Your task to perform on an android device: Open eBay Image 0: 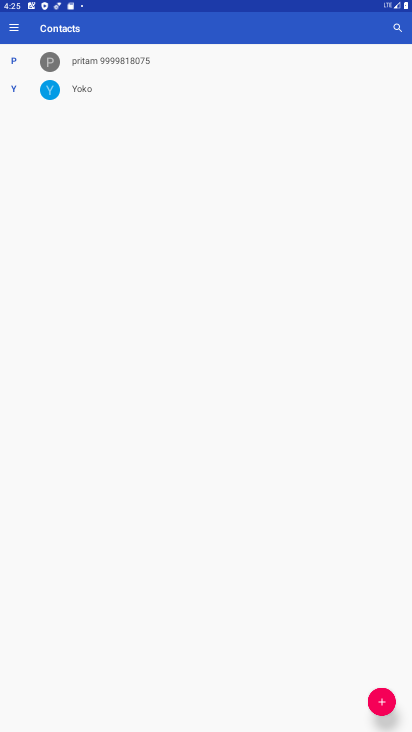
Step 0: press home button
Your task to perform on an android device: Open eBay Image 1: 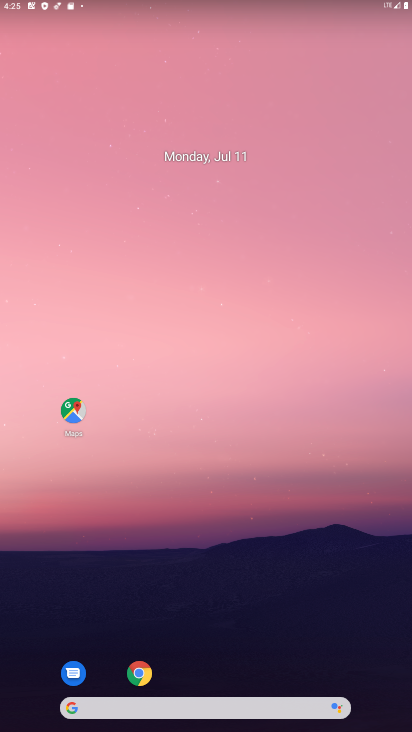
Step 1: drag from (305, 638) to (291, 137)
Your task to perform on an android device: Open eBay Image 2: 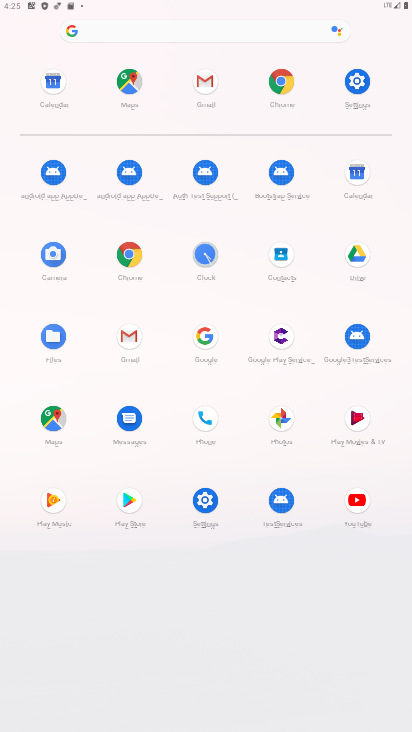
Step 2: click (276, 83)
Your task to perform on an android device: Open eBay Image 3: 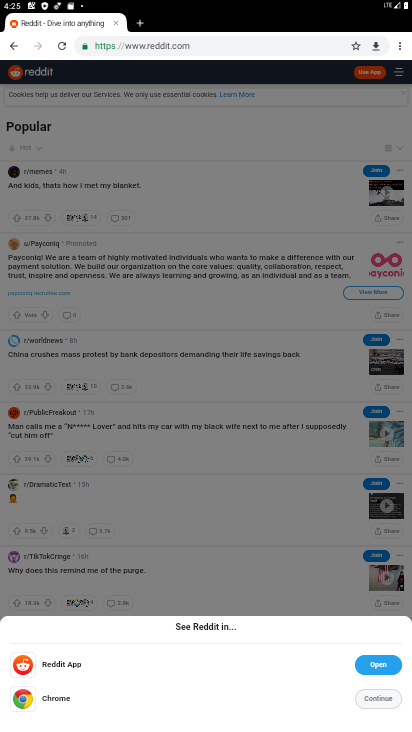
Step 3: click (270, 51)
Your task to perform on an android device: Open eBay Image 4: 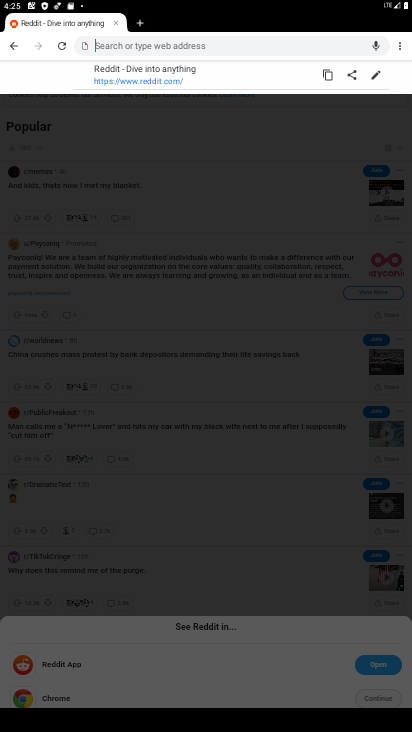
Step 4: type "ebay"
Your task to perform on an android device: Open eBay Image 5: 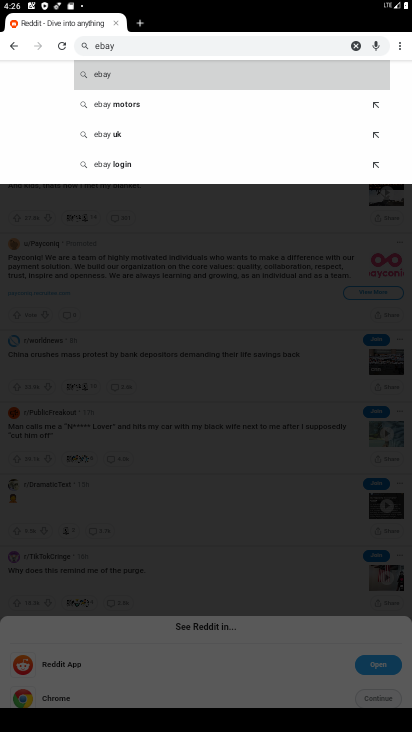
Step 5: click (111, 78)
Your task to perform on an android device: Open eBay Image 6: 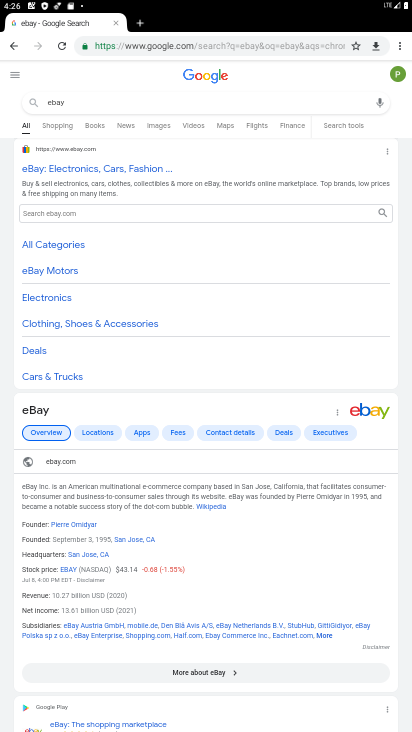
Step 6: click (109, 167)
Your task to perform on an android device: Open eBay Image 7: 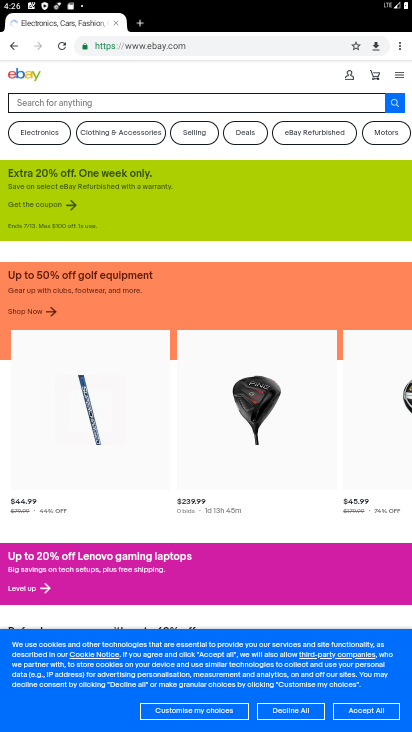
Step 7: task complete